Your task to perform on an android device: install app "Google Drive" Image 0: 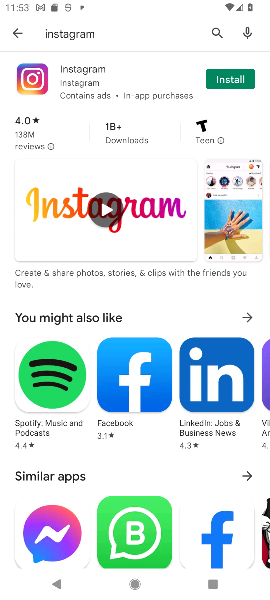
Step 0: click (19, 29)
Your task to perform on an android device: install app "Google Drive" Image 1: 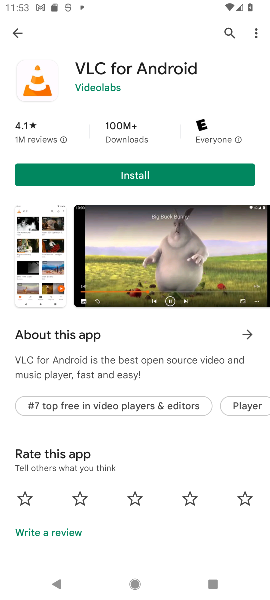
Step 1: click (14, 32)
Your task to perform on an android device: install app "Google Drive" Image 2: 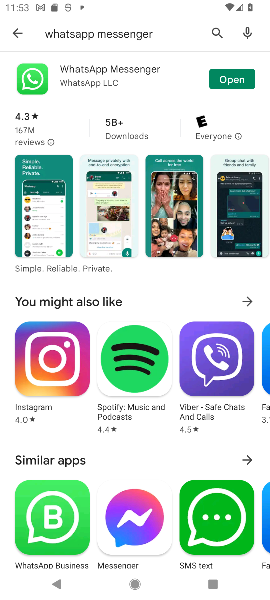
Step 2: press back button
Your task to perform on an android device: install app "Google Drive" Image 3: 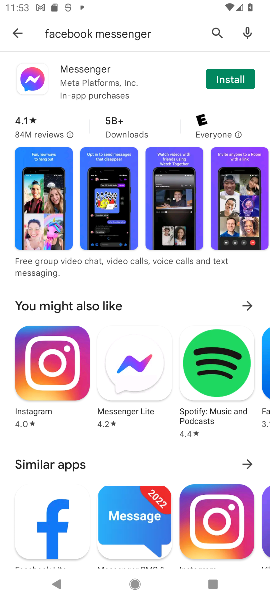
Step 3: click (212, 27)
Your task to perform on an android device: install app "Google Drive" Image 4: 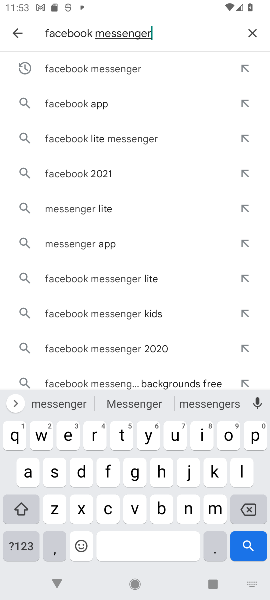
Step 4: click (253, 26)
Your task to perform on an android device: install app "Google Drive" Image 5: 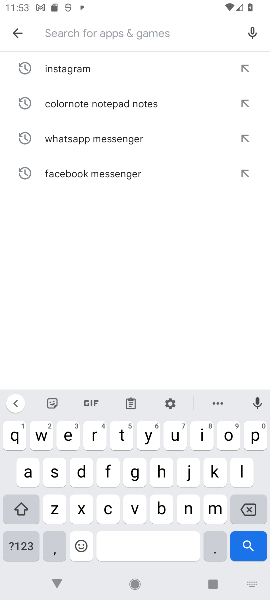
Step 5: type "Google Drive"
Your task to perform on an android device: install app "Google Drive" Image 6: 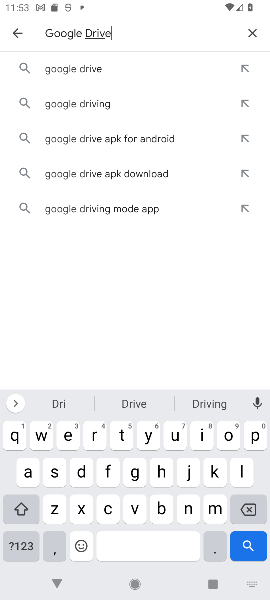
Step 6: type ""
Your task to perform on an android device: install app "Google Drive" Image 7: 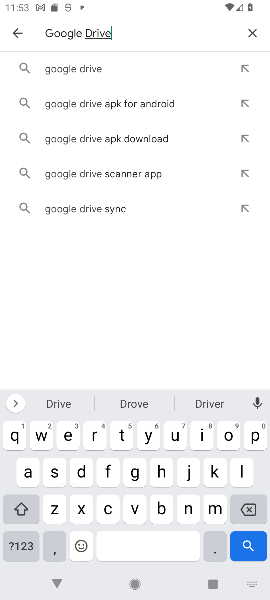
Step 7: click (154, 65)
Your task to perform on an android device: install app "Google Drive" Image 8: 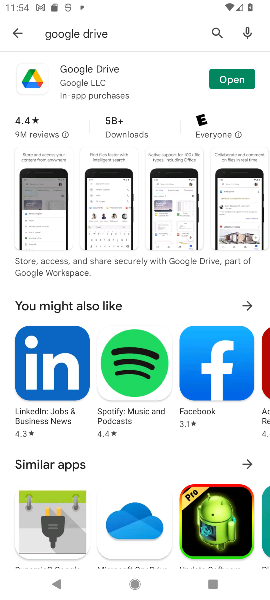
Step 8: task complete